Your task to perform on an android device: Open accessibility settings Image 0: 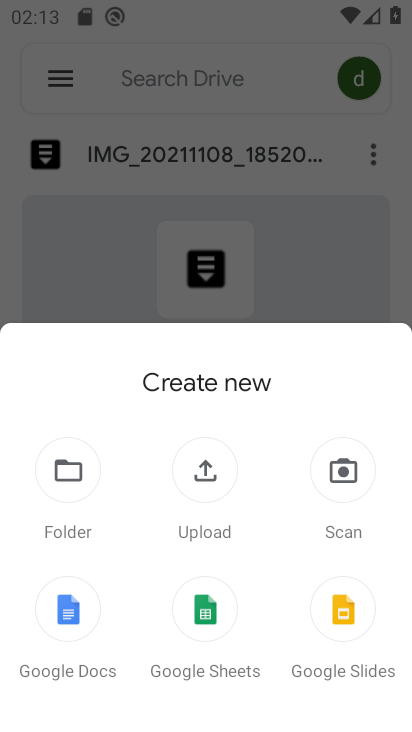
Step 0: press home button
Your task to perform on an android device: Open accessibility settings Image 1: 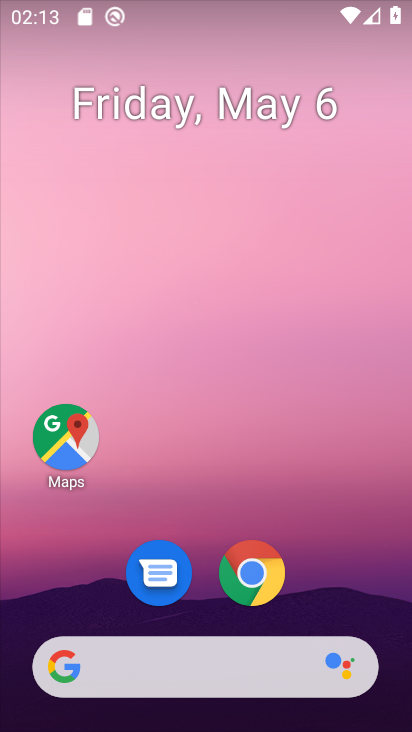
Step 1: drag from (214, 551) to (260, 187)
Your task to perform on an android device: Open accessibility settings Image 2: 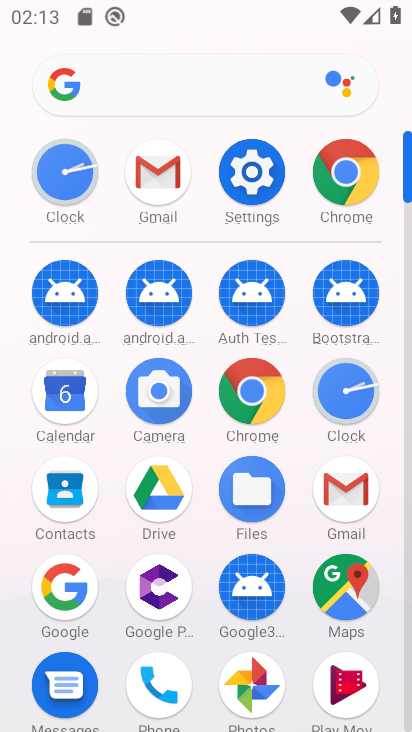
Step 2: click (242, 165)
Your task to perform on an android device: Open accessibility settings Image 3: 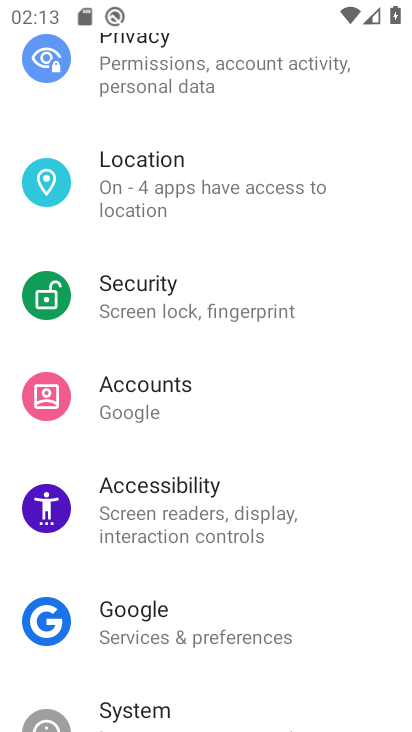
Step 3: click (186, 504)
Your task to perform on an android device: Open accessibility settings Image 4: 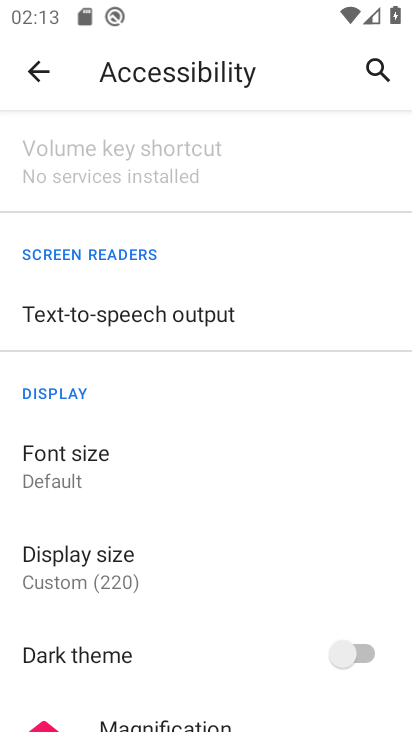
Step 4: task complete